Your task to perform on an android device: check data usage Image 0: 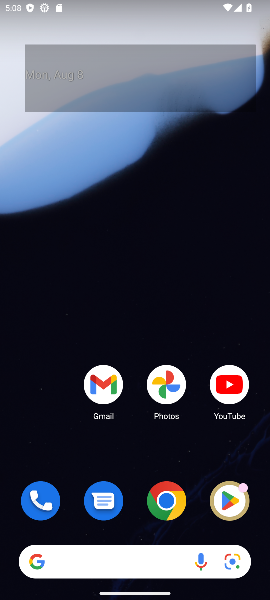
Step 0: click (66, 562)
Your task to perform on an android device: check data usage Image 1: 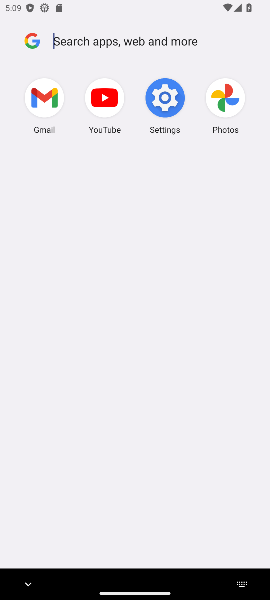
Step 1: press home button
Your task to perform on an android device: check data usage Image 2: 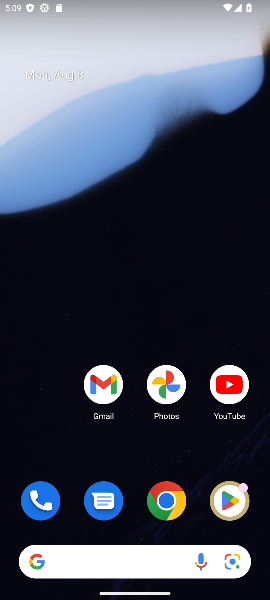
Step 2: drag from (12, 549) to (146, 198)
Your task to perform on an android device: check data usage Image 3: 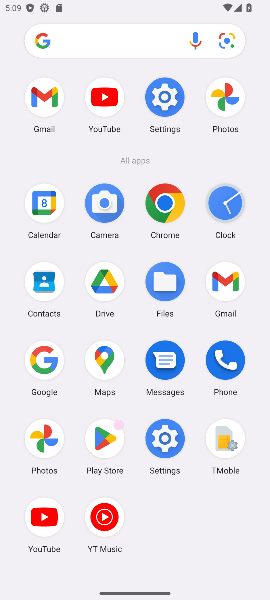
Step 3: click (171, 442)
Your task to perform on an android device: check data usage Image 4: 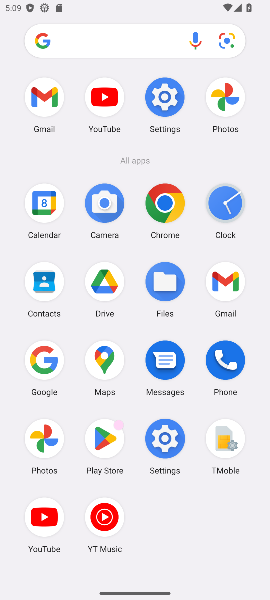
Step 4: click (171, 442)
Your task to perform on an android device: check data usage Image 5: 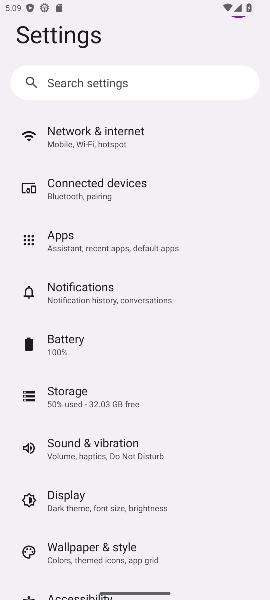
Step 5: click (93, 126)
Your task to perform on an android device: check data usage Image 6: 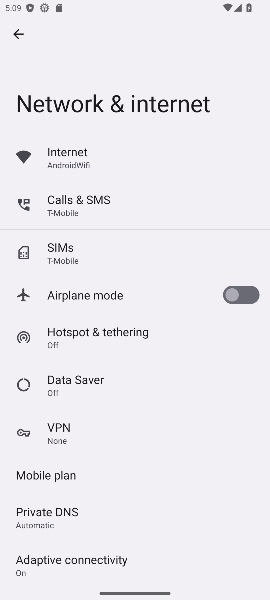
Step 6: click (78, 153)
Your task to perform on an android device: check data usage Image 7: 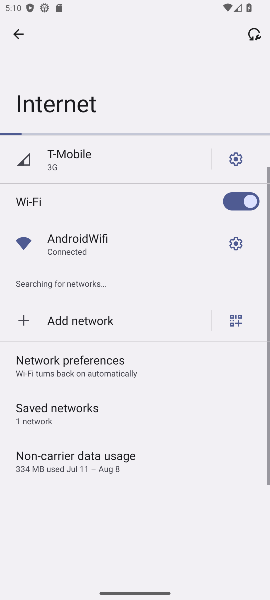
Step 7: click (78, 153)
Your task to perform on an android device: check data usage Image 8: 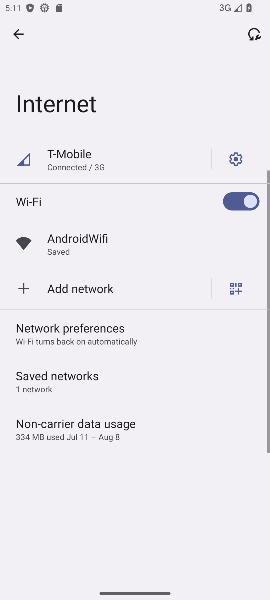
Step 8: click (77, 416)
Your task to perform on an android device: check data usage Image 9: 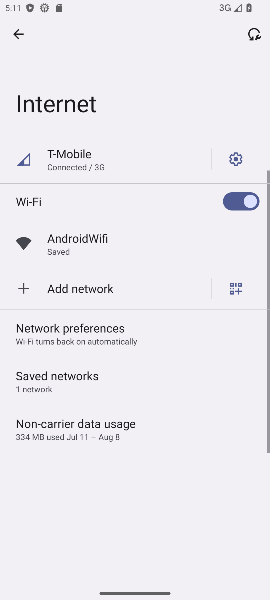
Step 9: click (77, 416)
Your task to perform on an android device: check data usage Image 10: 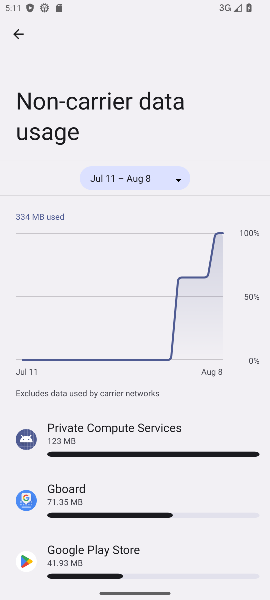
Step 10: task complete